Your task to perform on an android device: Open display settings Image 0: 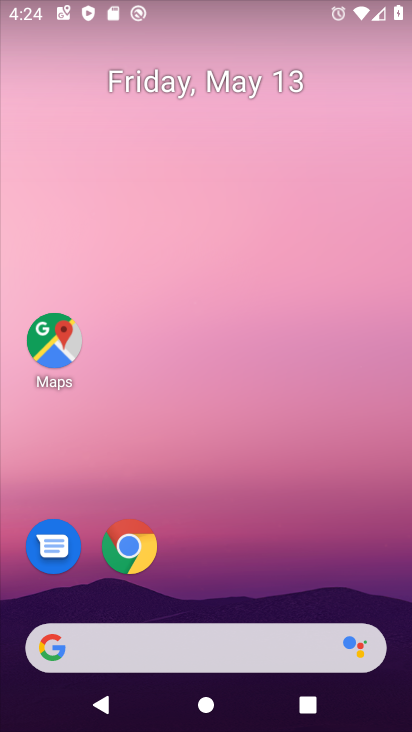
Step 0: drag from (202, 606) to (273, 109)
Your task to perform on an android device: Open display settings Image 1: 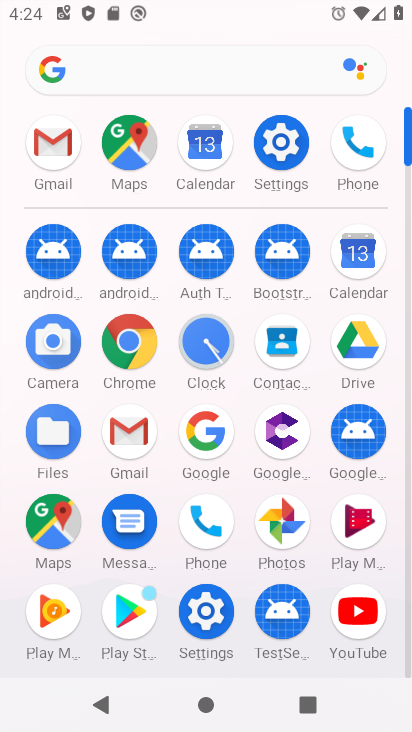
Step 1: click (214, 626)
Your task to perform on an android device: Open display settings Image 2: 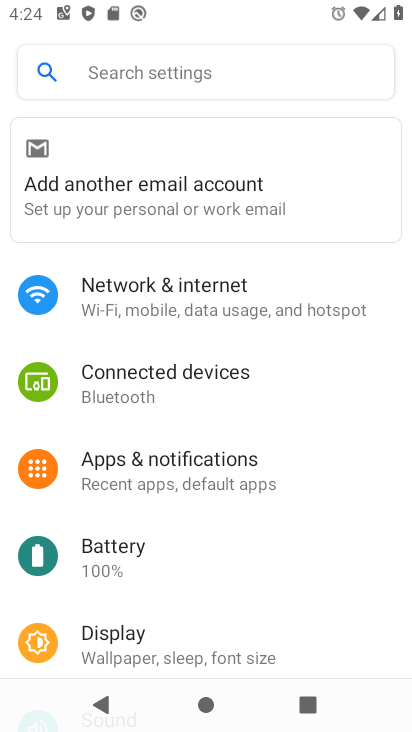
Step 2: drag from (169, 570) to (236, 340)
Your task to perform on an android device: Open display settings Image 3: 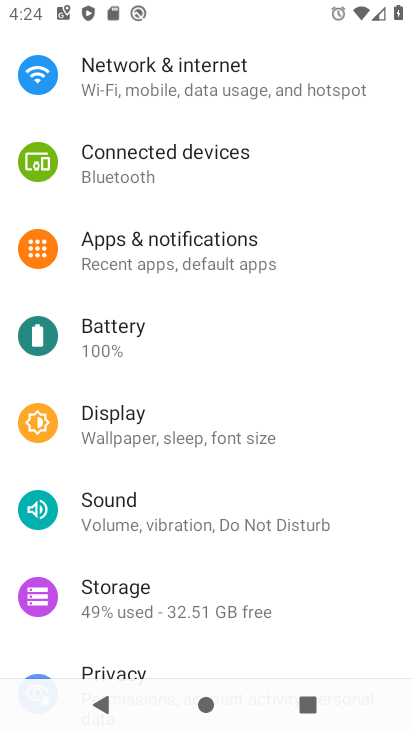
Step 3: click (213, 441)
Your task to perform on an android device: Open display settings Image 4: 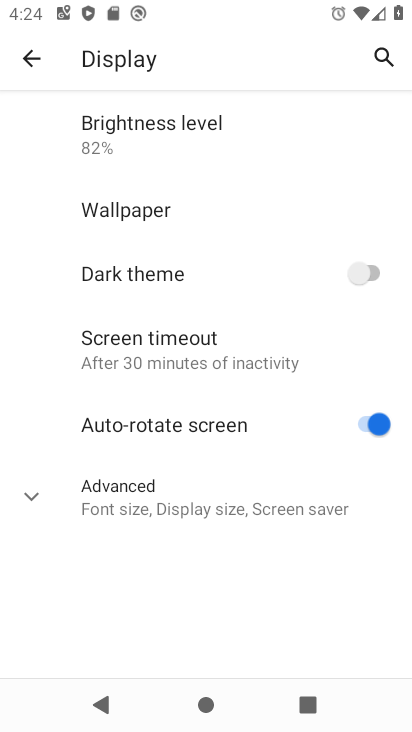
Step 4: task complete